Your task to perform on an android device: Go to display settings Image 0: 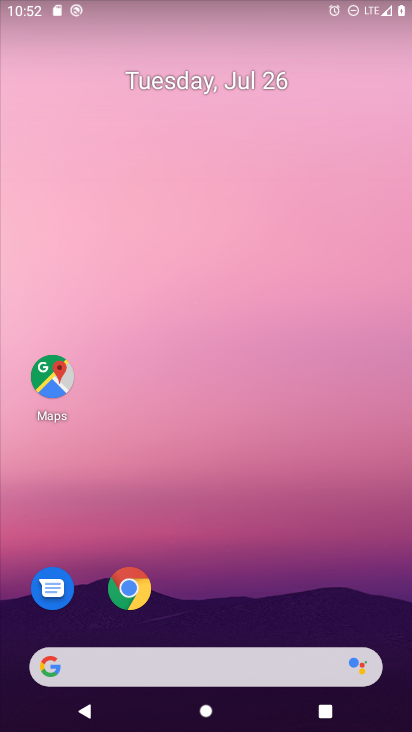
Step 0: drag from (175, 651) to (230, 241)
Your task to perform on an android device: Go to display settings Image 1: 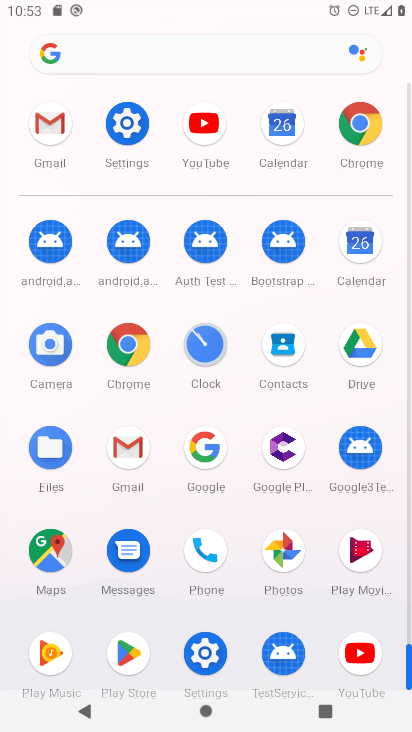
Step 1: click (126, 138)
Your task to perform on an android device: Go to display settings Image 2: 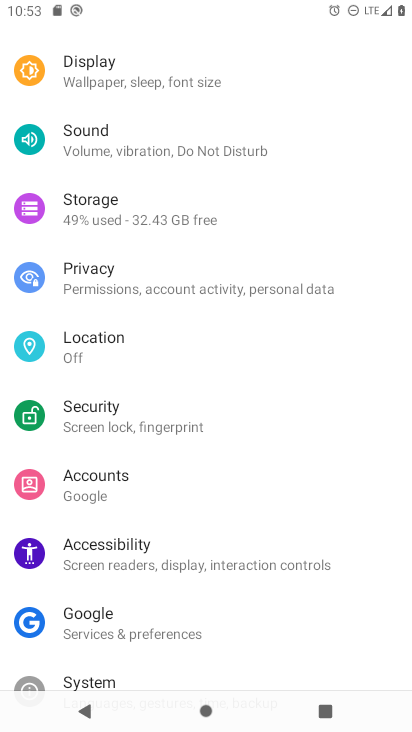
Step 2: click (146, 78)
Your task to perform on an android device: Go to display settings Image 3: 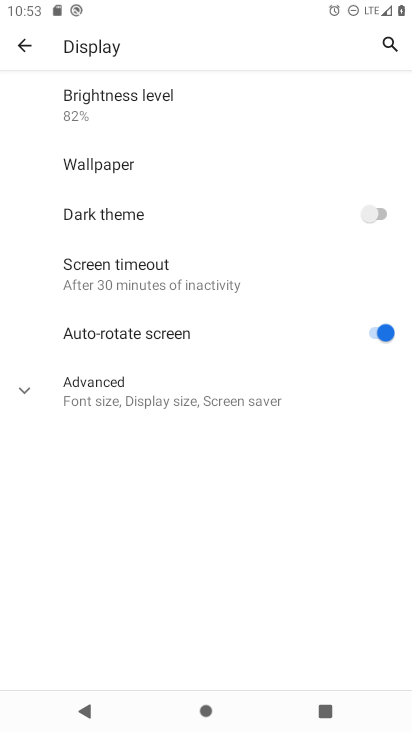
Step 3: task complete